Your task to perform on an android device: Open Google Chrome Image 0: 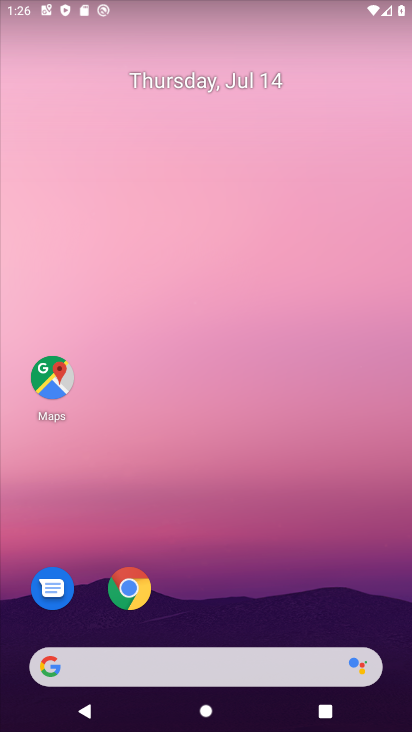
Step 0: click (131, 579)
Your task to perform on an android device: Open Google Chrome Image 1: 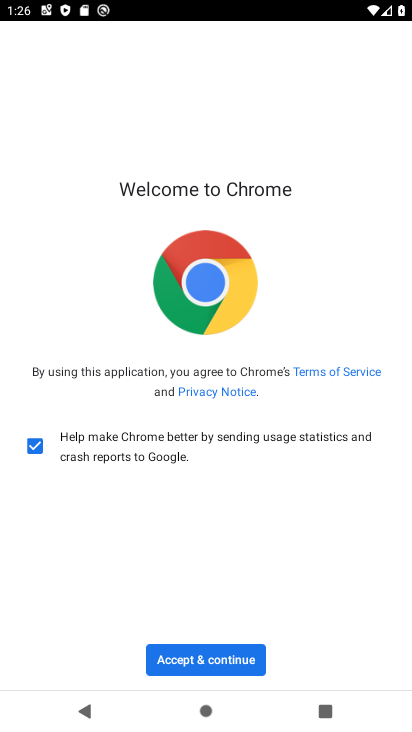
Step 1: click (196, 652)
Your task to perform on an android device: Open Google Chrome Image 2: 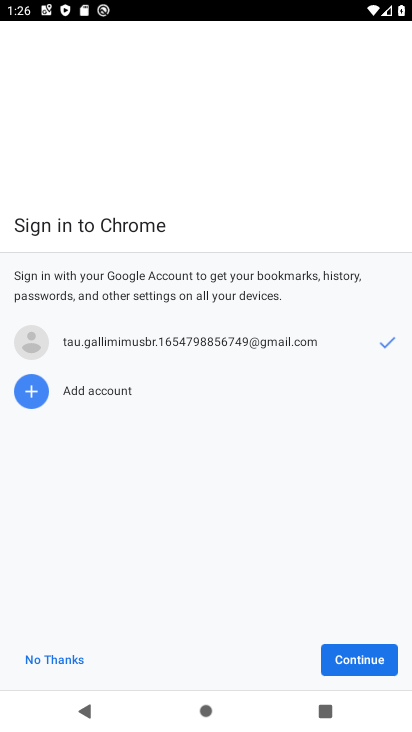
Step 2: click (343, 652)
Your task to perform on an android device: Open Google Chrome Image 3: 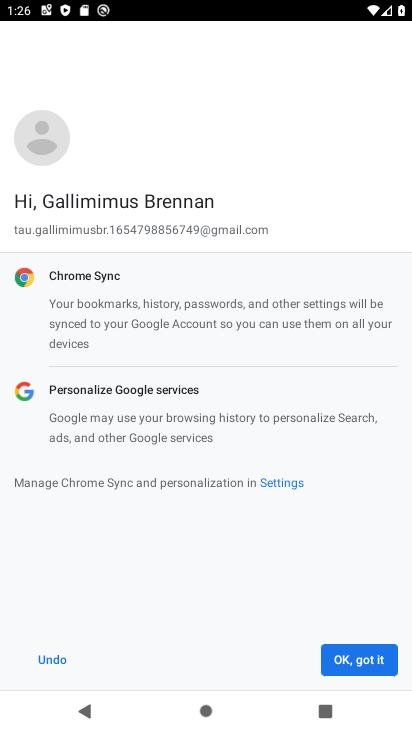
Step 3: click (343, 652)
Your task to perform on an android device: Open Google Chrome Image 4: 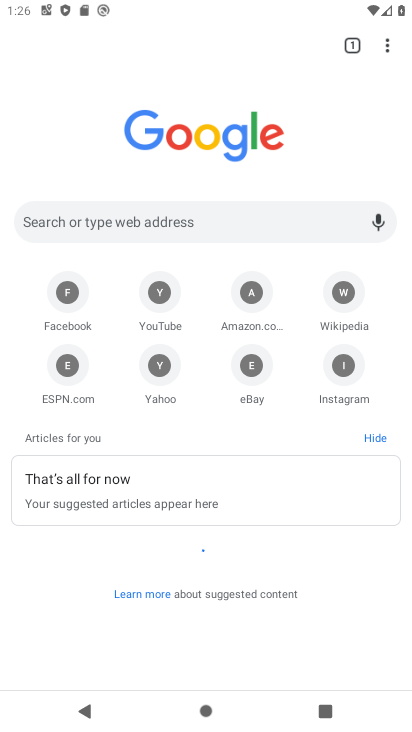
Step 4: task complete